Your task to perform on an android device: Show me popular games on the Play Store Image 0: 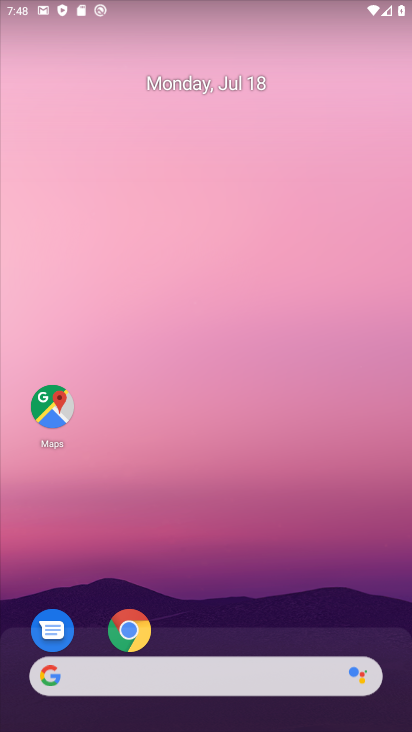
Step 0: drag from (202, 602) to (213, 176)
Your task to perform on an android device: Show me popular games on the Play Store Image 1: 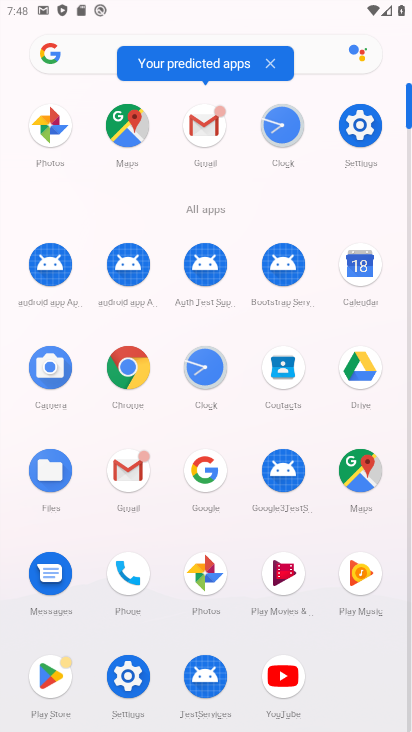
Step 1: click (48, 671)
Your task to perform on an android device: Show me popular games on the Play Store Image 2: 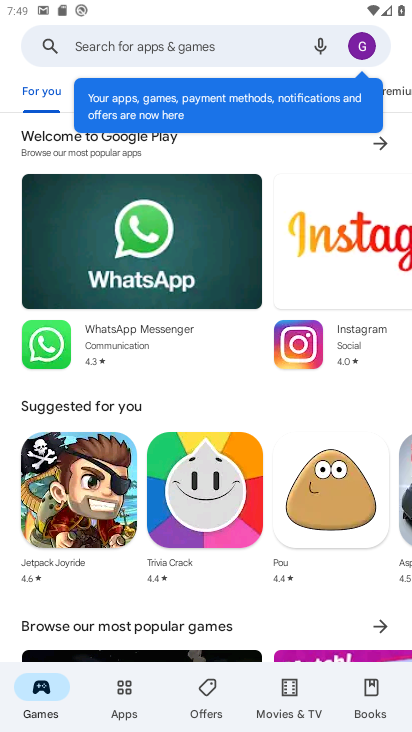
Step 2: click (116, 85)
Your task to perform on an android device: Show me popular games on the Play Store Image 3: 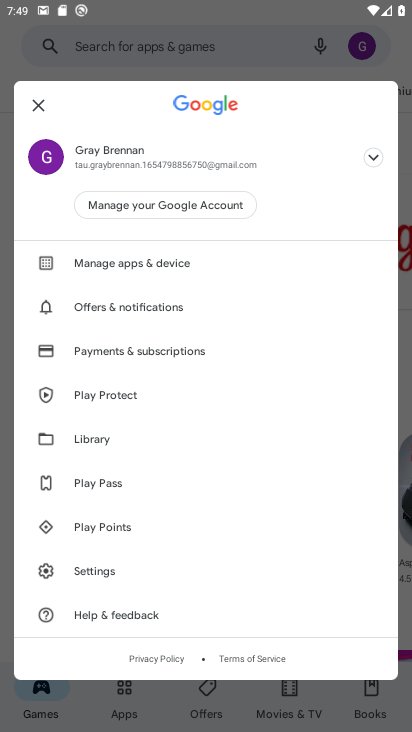
Step 3: click (122, 85)
Your task to perform on an android device: Show me popular games on the Play Store Image 4: 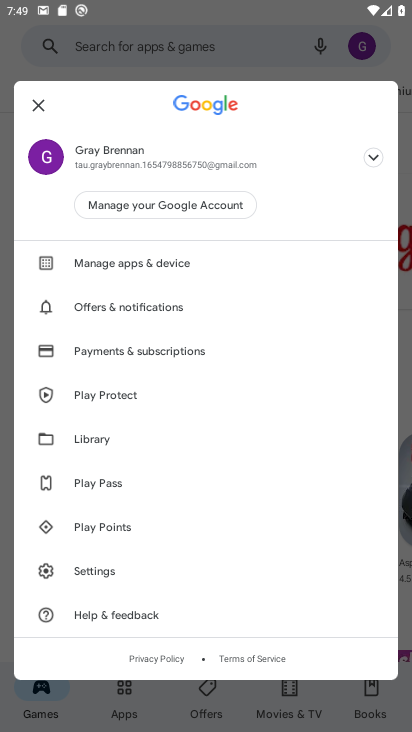
Step 4: click (43, 102)
Your task to perform on an android device: Show me popular games on the Play Store Image 5: 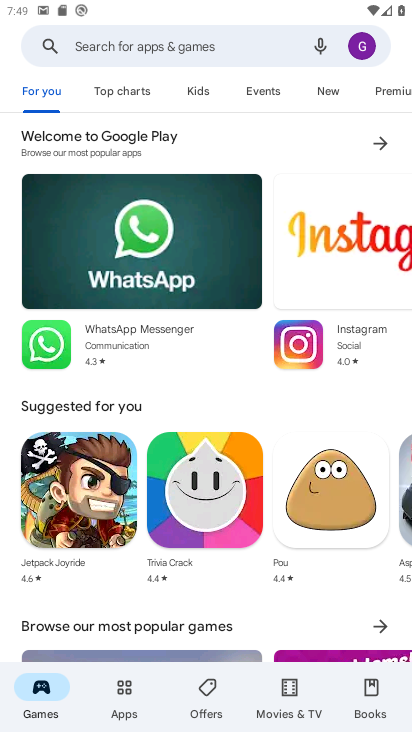
Step 5: click (114, 103)
Your task to perform on an android device: Show me popular games on the Play Store Image 6: 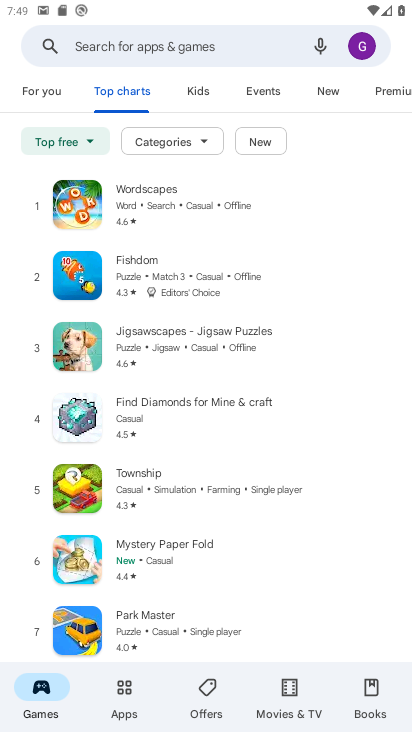
Step 6: task complete